Your task to perform on an android device: Open the calendar and show me this week's events? Image 0: 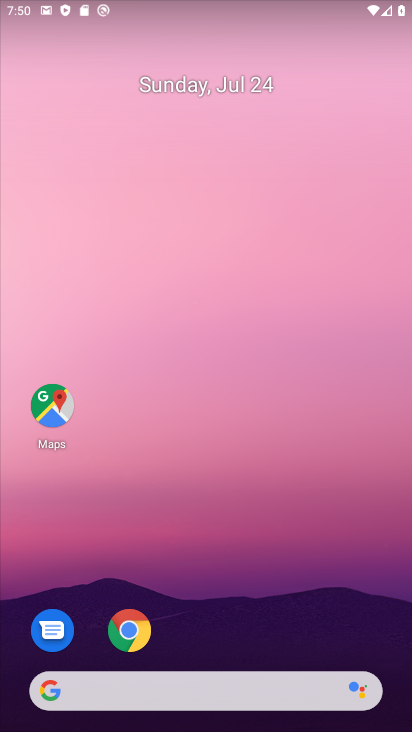
Step 0: drag from (225, 432) to (232, 21)
Your task to perform on an android device: Open the calendar and show me this week's events? Image 1: 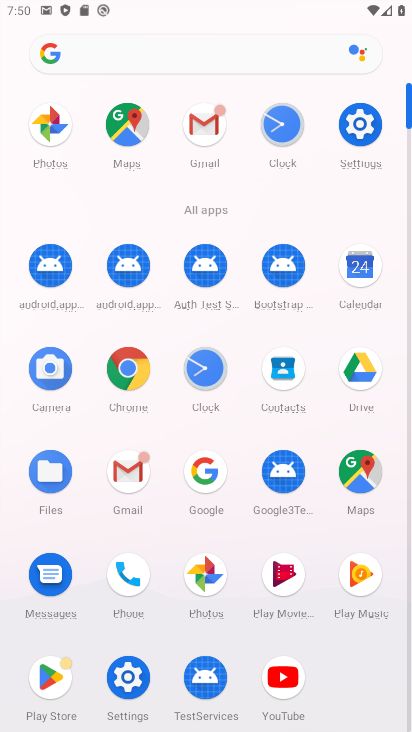
Step 1: click (355, 262)
Your task to perform on an android device: Open the calendar and show me this week's events? Image 2: 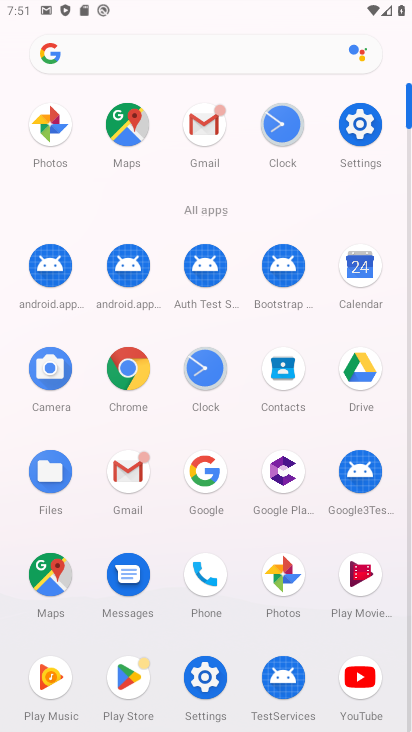
Step 2: click (359, 266)
Your task to perform on an android device: Open the calendar and show me this week's events? Image 3: 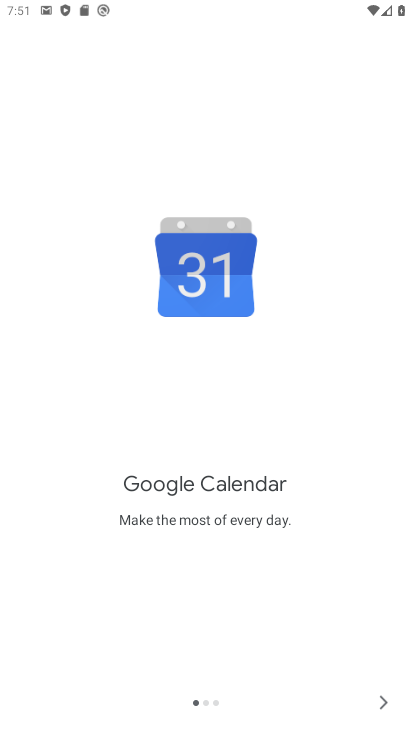
Step 3: click (385, 702)
Your task to perform on an android device: Open the calendar and show me this week's events? Image 4: 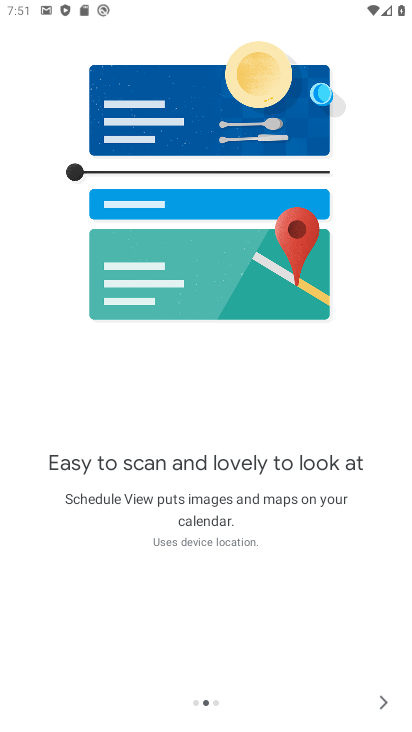
Step 4: click (385, 702)
Your task to perform on an android device: Open the calendar and show me this week's events? Image 5: 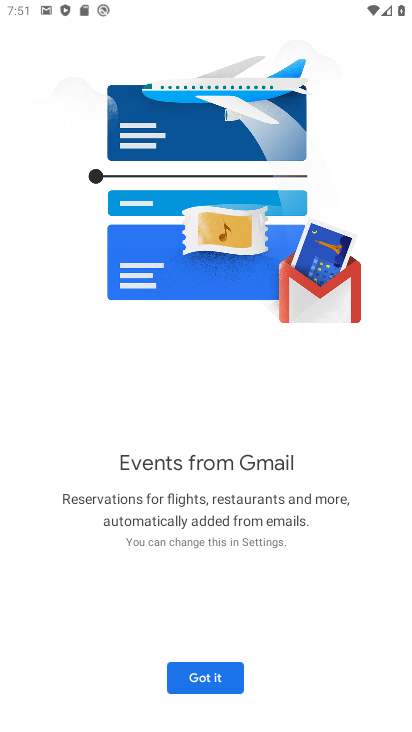
Step 5: click (385, 702)
Your task to perform on an android device: Open the calendar and show me this week's events? Image 6: 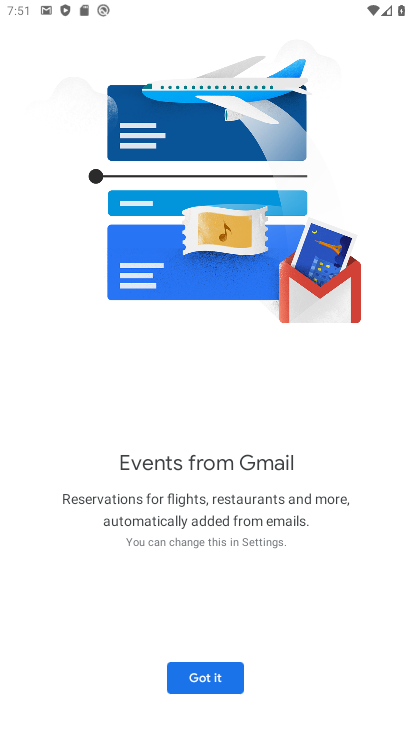
Step 6: click (224, 669)
Your task to perform on an android device: Open the calendar and show me this week's events? Image 7: 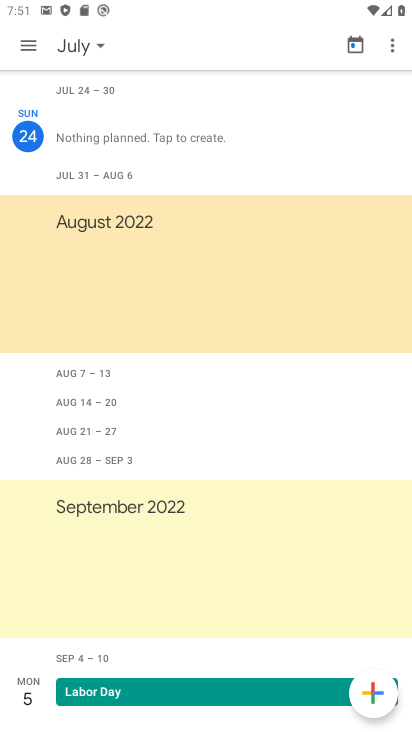
Step 7: click (30, 50)
Your task to perform on an android device: Open the calendar and show me this week's events? Image 8: 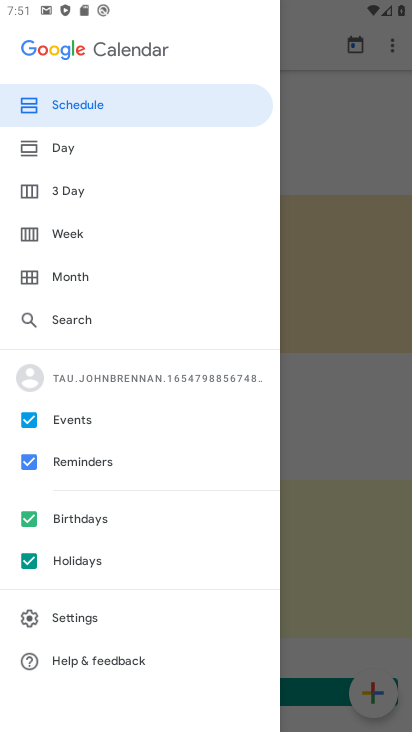
Step 8: click (339, 287)
Your task to perform on an android device: Open the calendar and show me this week's events? Image 9: 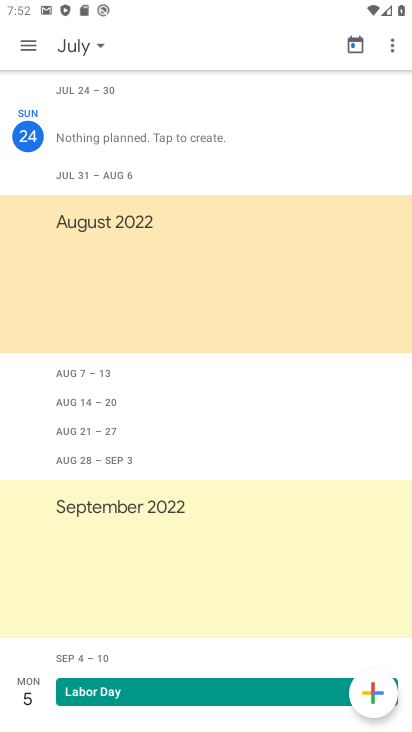
Step 9: task complete